Your task to perform on an android device: Find coffee shops on Maps Image 0: 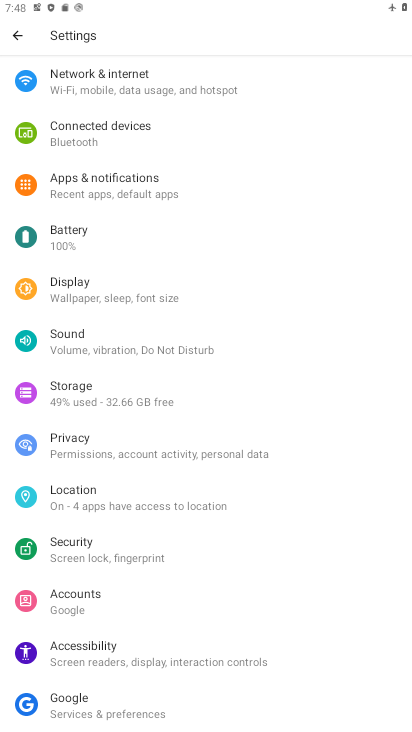
Step 0: press home button
Your task to perform on an android device: Find coffee shops on Maps Image 1: 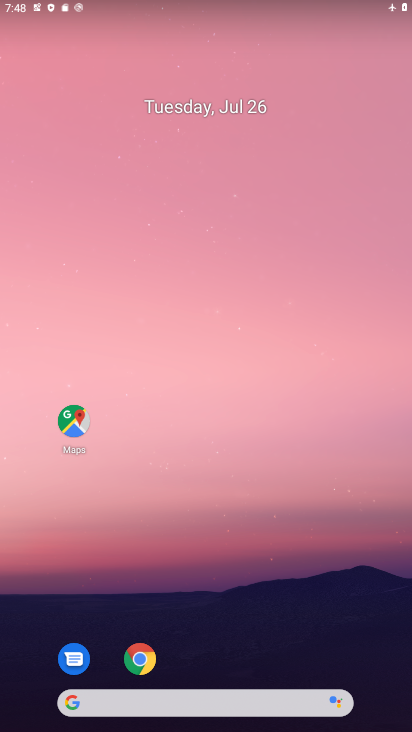
Step 1: click (67, 433)
Your task to perform on an android device: Find coffee shops on Maps Image 2: 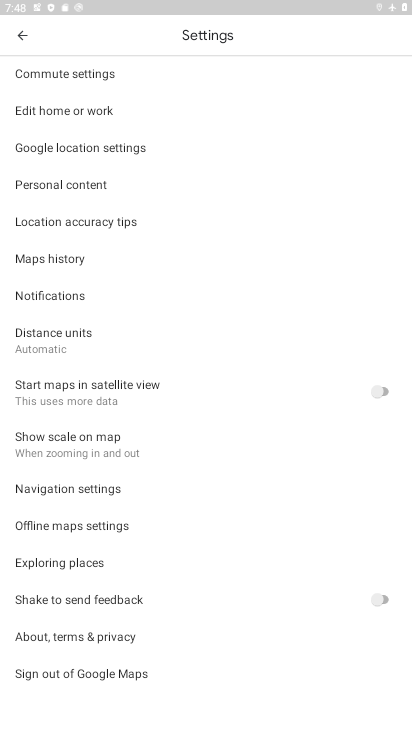
Step 2: click (21, 37)
Your task to perform on an android device: Find coffee shops on Maps Image 3: 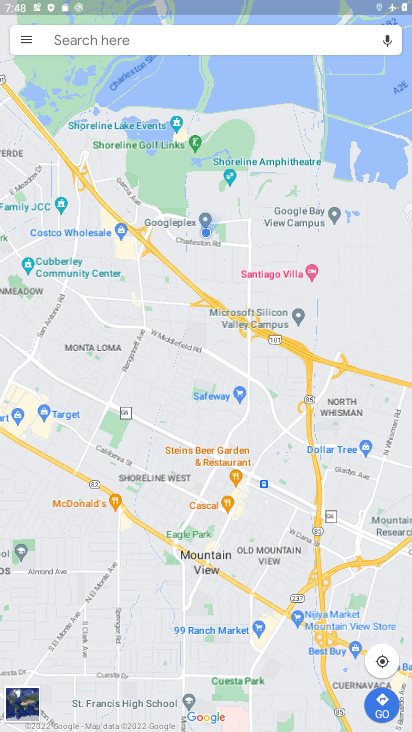
Step 3: click (163, 48)
Your task to perform on an android device: Find coffee shops on Maps Image 4: 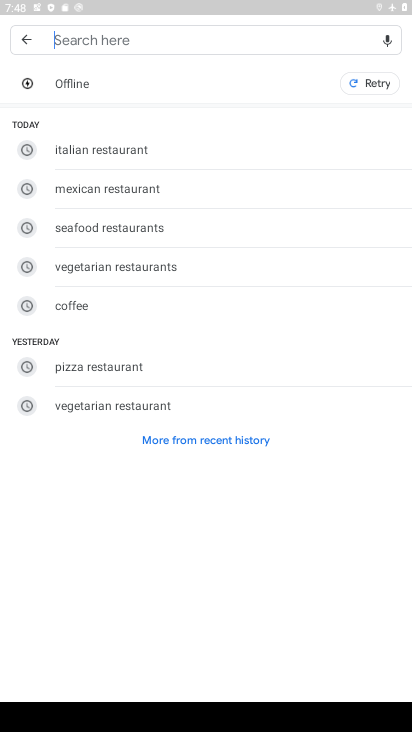
Step 4: click (70, 303)
Your task to perform on an android device: Find coffee shops on Maps Image 5: 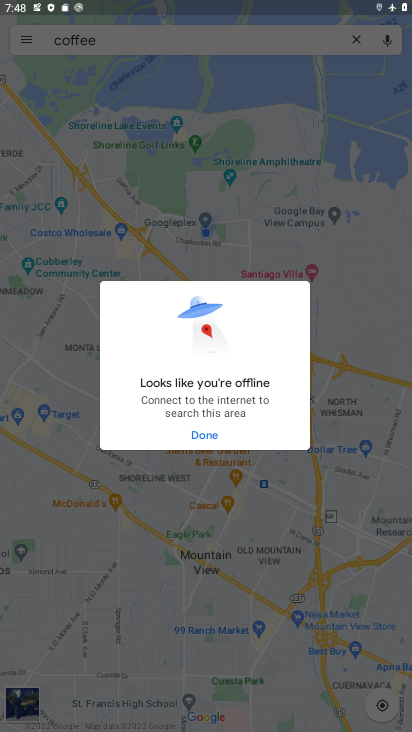
Step 5: task complete